Your task to perform on an android device: Clear the shopping cart on newegg.com. Add logitech g pro to the cart on newegg.com, then select checkout. Image 0: 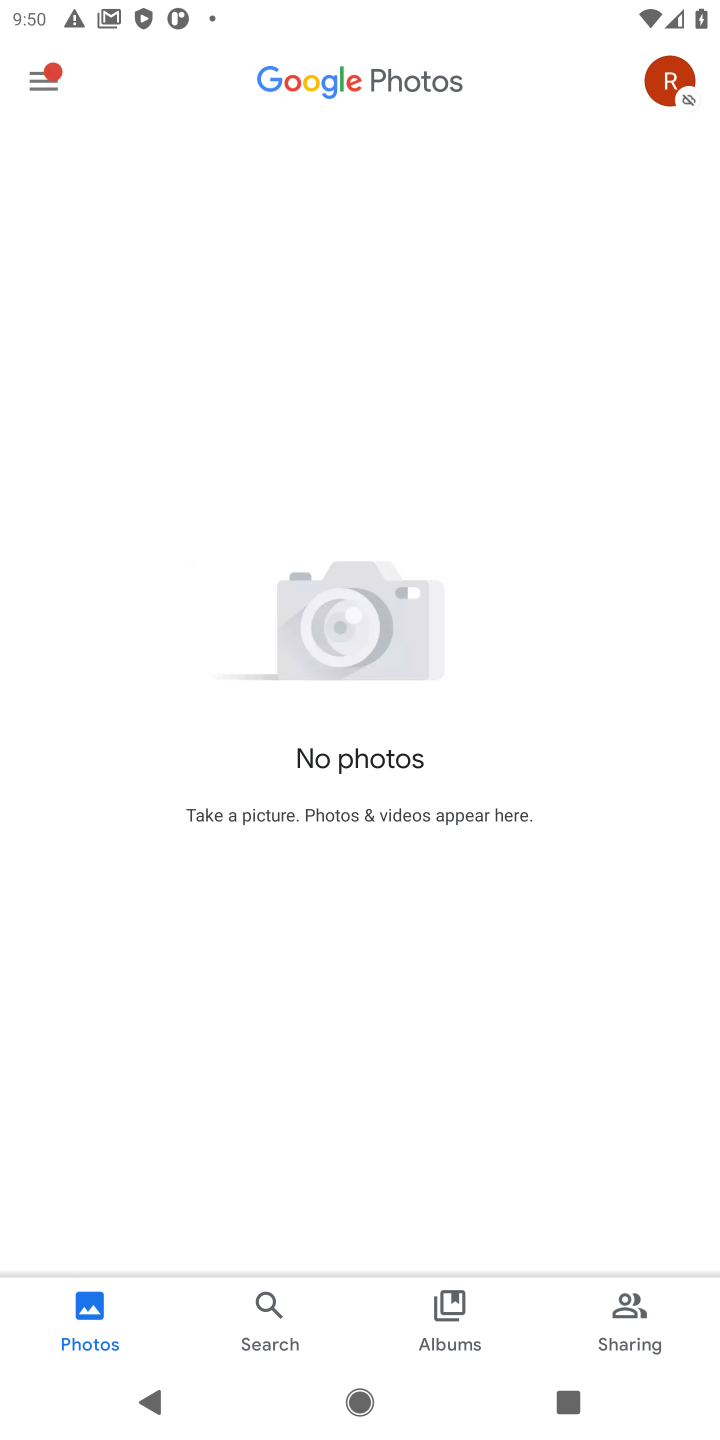
Step 0: press home button
Your task to perform on an android device: Clear the shopping cart on newegg.com. Add logitech g pro to the cart on newegg.com, then select checkout. Image 1: 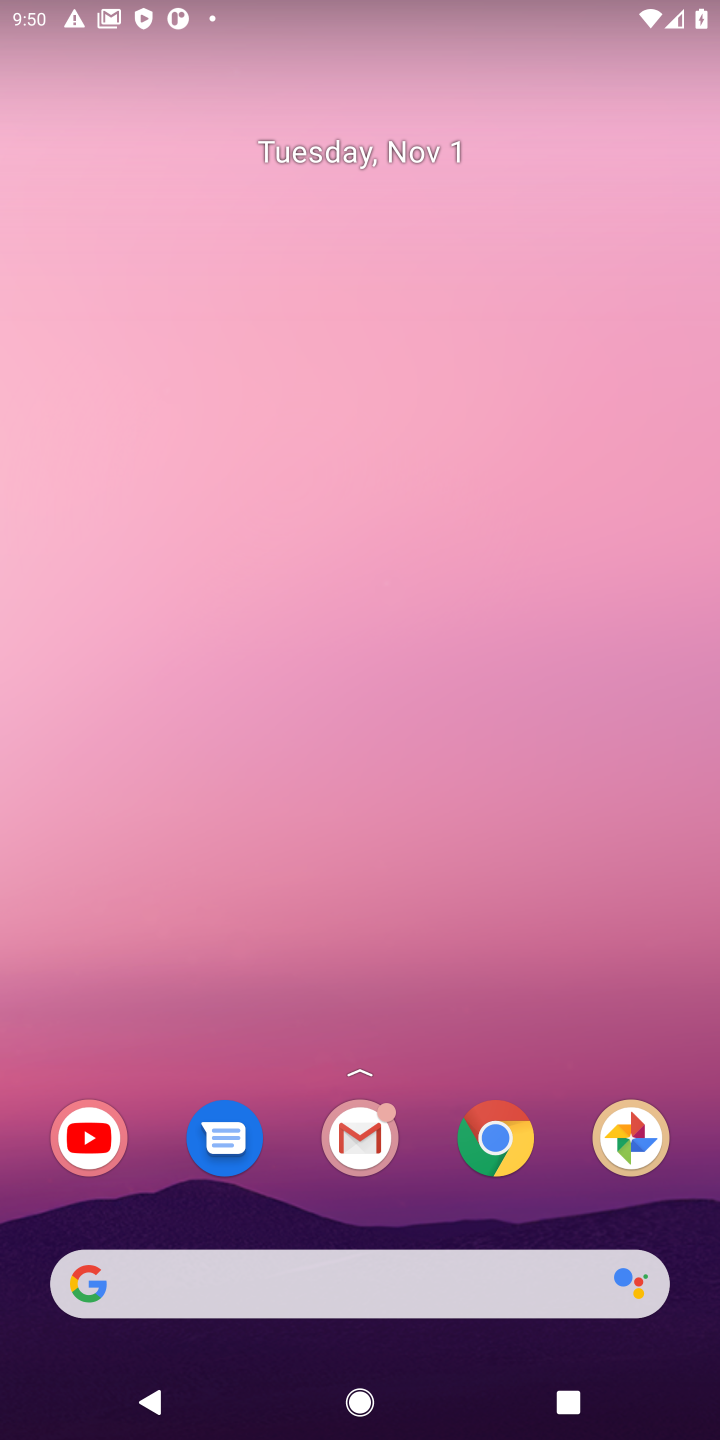
Step 1: click (517, 1148)
Your task to perform on an android device: Clear the shopping cart on newegg.com. Add logitech g pro to the cart on newegg.com, then select checkout. Image 2: 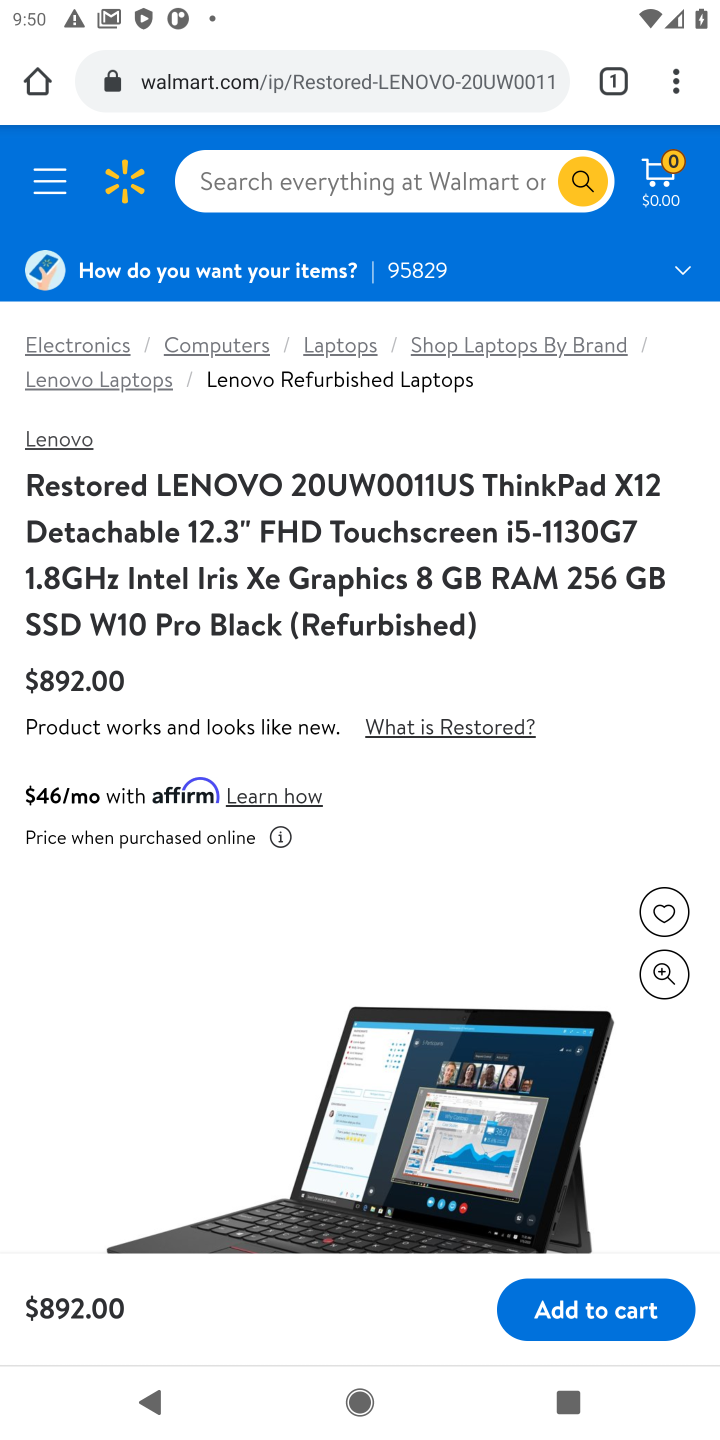
Step 2: click (224, 102)
Your task to perform on an android device: Clear the shopping cart on newegg.com. Add logitech g pro to the cart on newegg.com, then select checkout. Image 3: 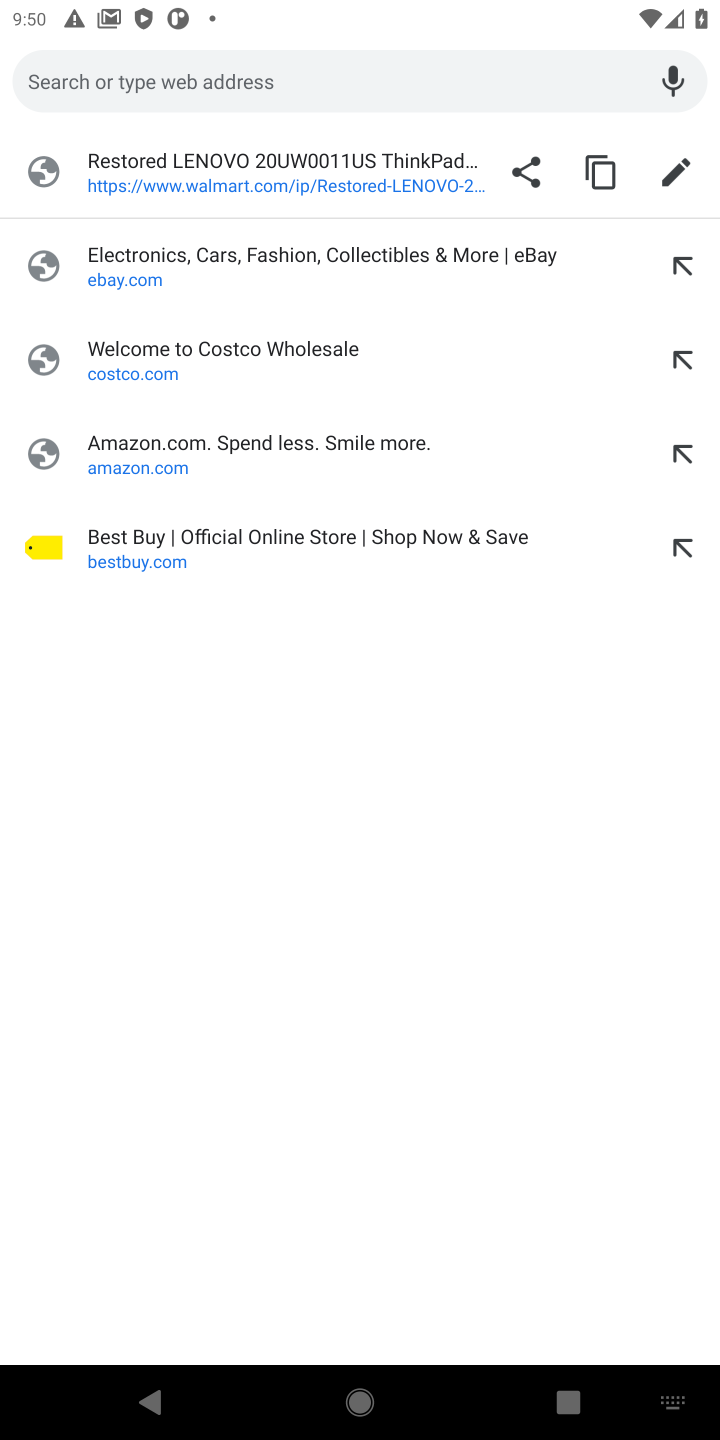
Step 3: type "newegg.com"
Your task to perform on an android device: Clear the shopping cart on newegg.com. Add logitech g pro to the cart on newegg.com, then select checkout. Image 4: 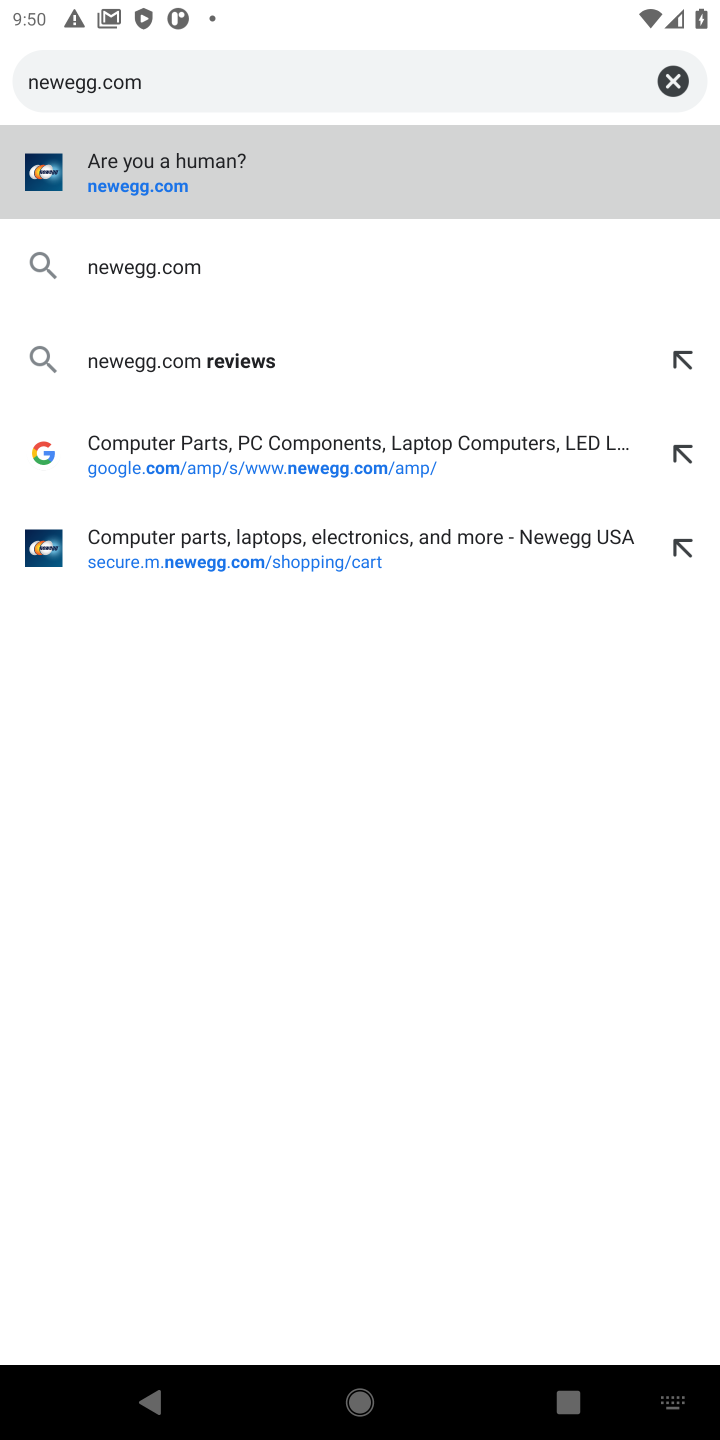
Step 4: click (120, 270)
Your task to perform on an android device: Clear the shopping cart on newegg.com. Add logitech g pro to the cart on newegg.com, then select checkout. Image 5: 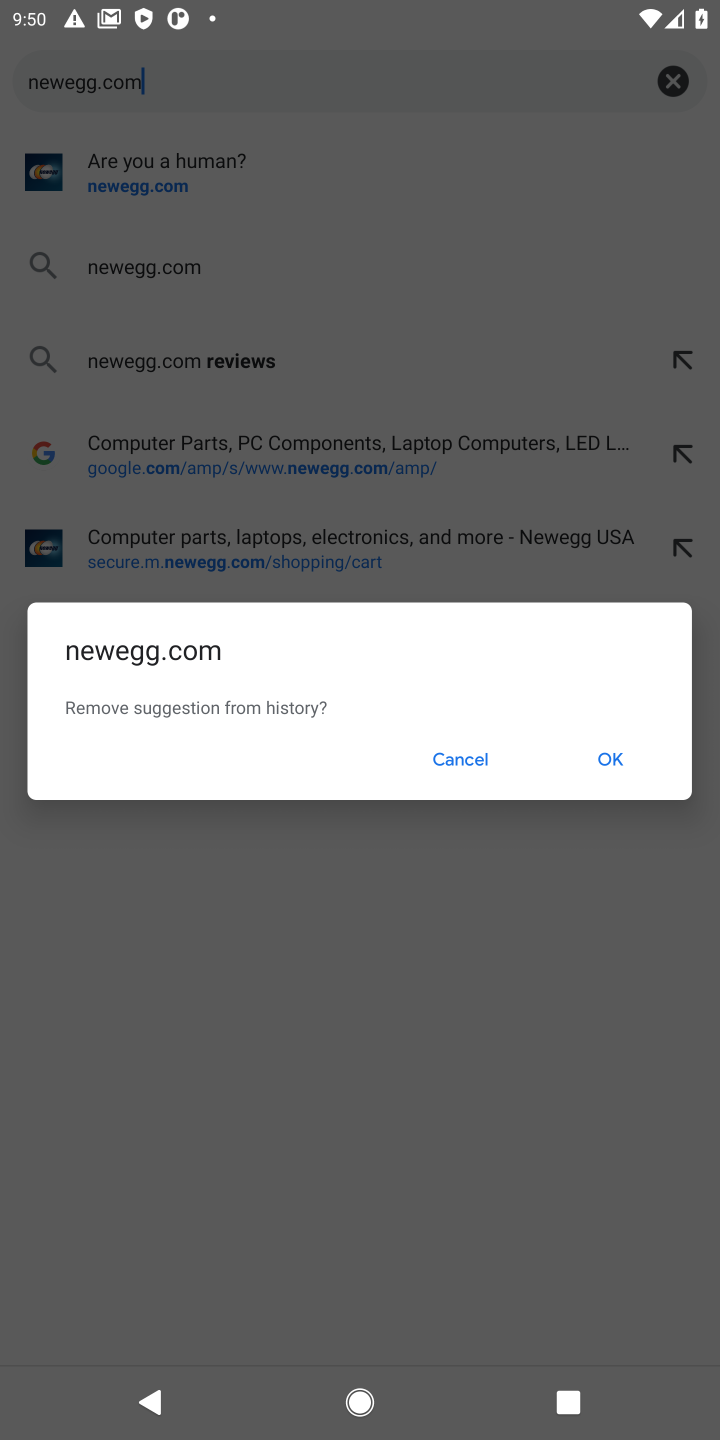
Step 5: click (470, 773)
Your task to perform on an android device: Clear the shopping cart on newegg.com. Add logitech g pro to the cart on newegg.com, then select checkout. Image 6: 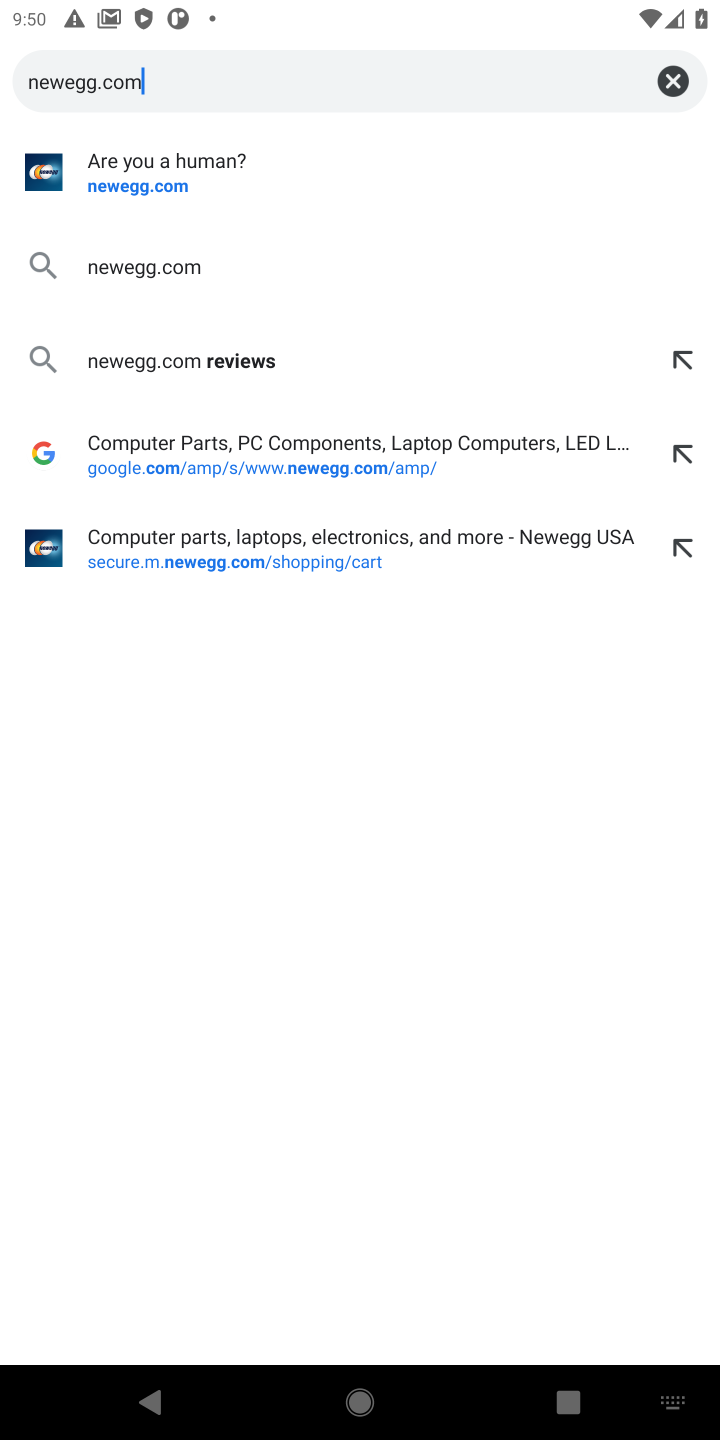
Step 6: click (125, 280)
Your task to perform on an android device: Clear the shopping cart on newegg.com. Add logitech g pro to the cart on newegg.com, then select checkout. Image 7: 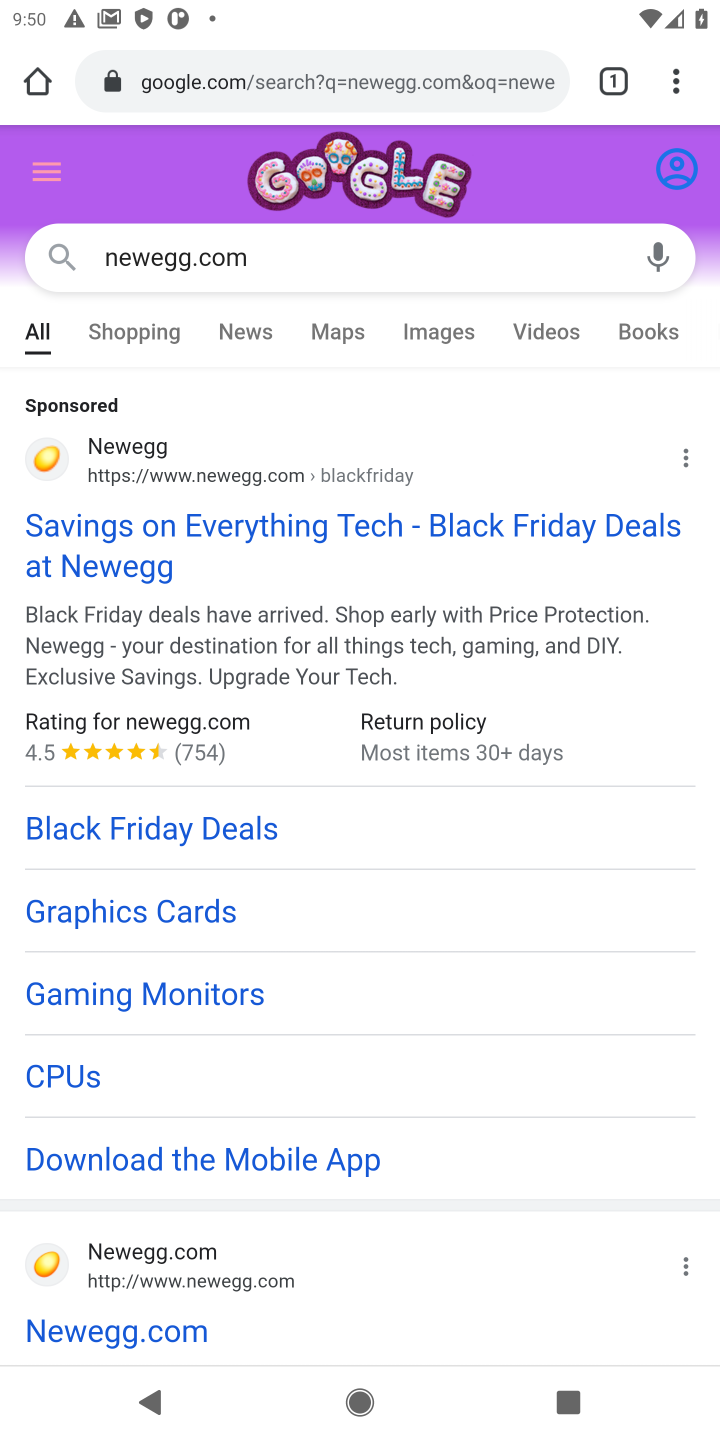
Step 7: drag from (304, 909) to (285, 273)
Your task to perform on an android device: Clear the shopping cart on newegg.com. Add logitech g pro to the cart on newegg.com, then select checkout. Image 8: 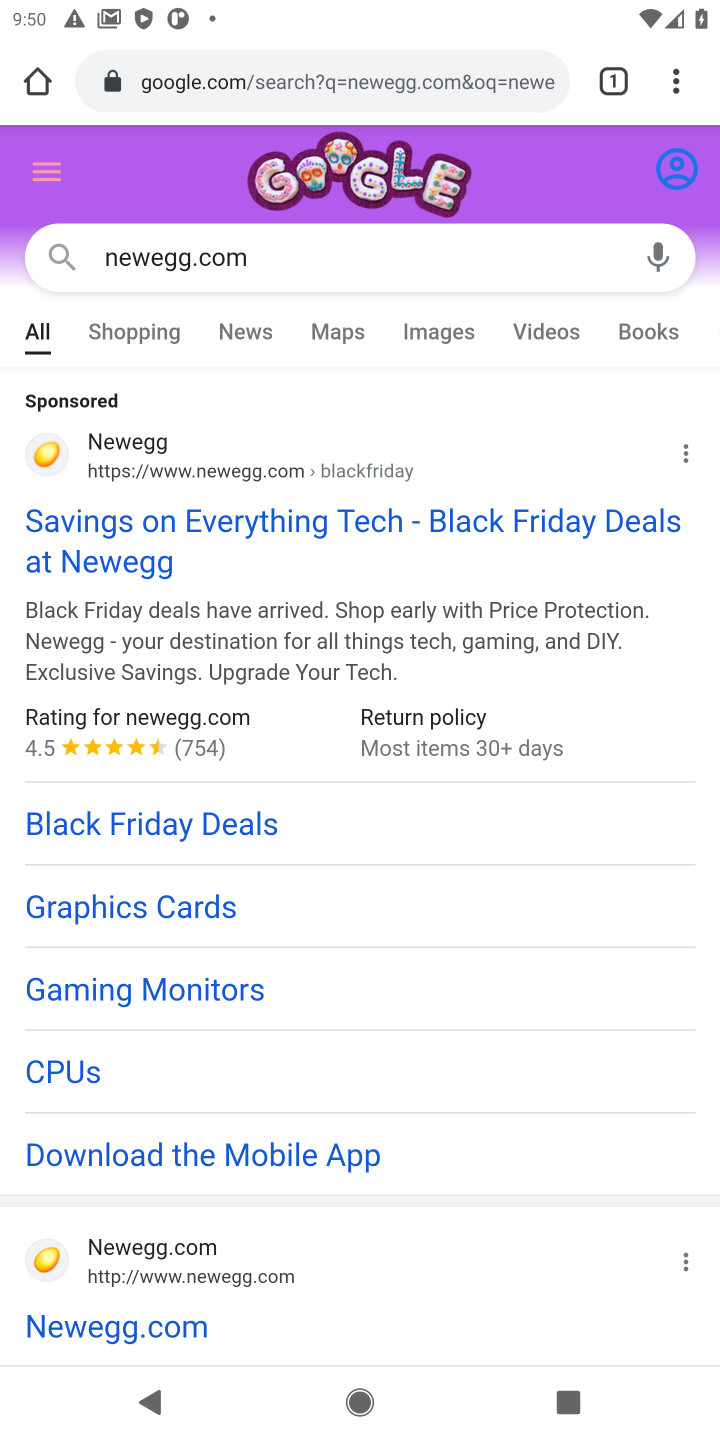
Step 8: click (148, 1251)
Your task to perform on an android device: Clear the shopping cart on newegg.com. Add logitech g pro to the cart on newegg.com, then select checkout. Image 9: 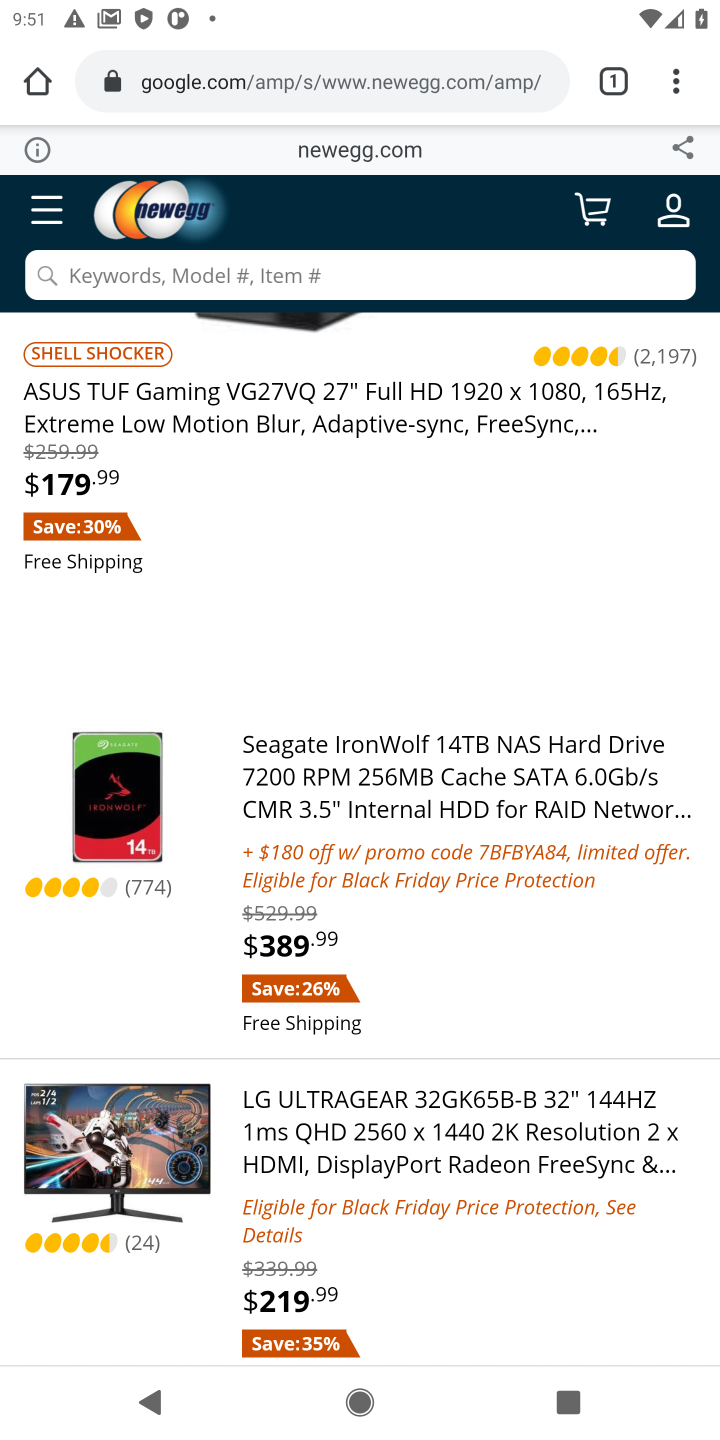
Step 9: click (592, 216)
Your task to perform on an android device: Clear the shopping cart on newegg.com. Add logitech g pro to the cart on newegg.com, then select checkout. Image 10: 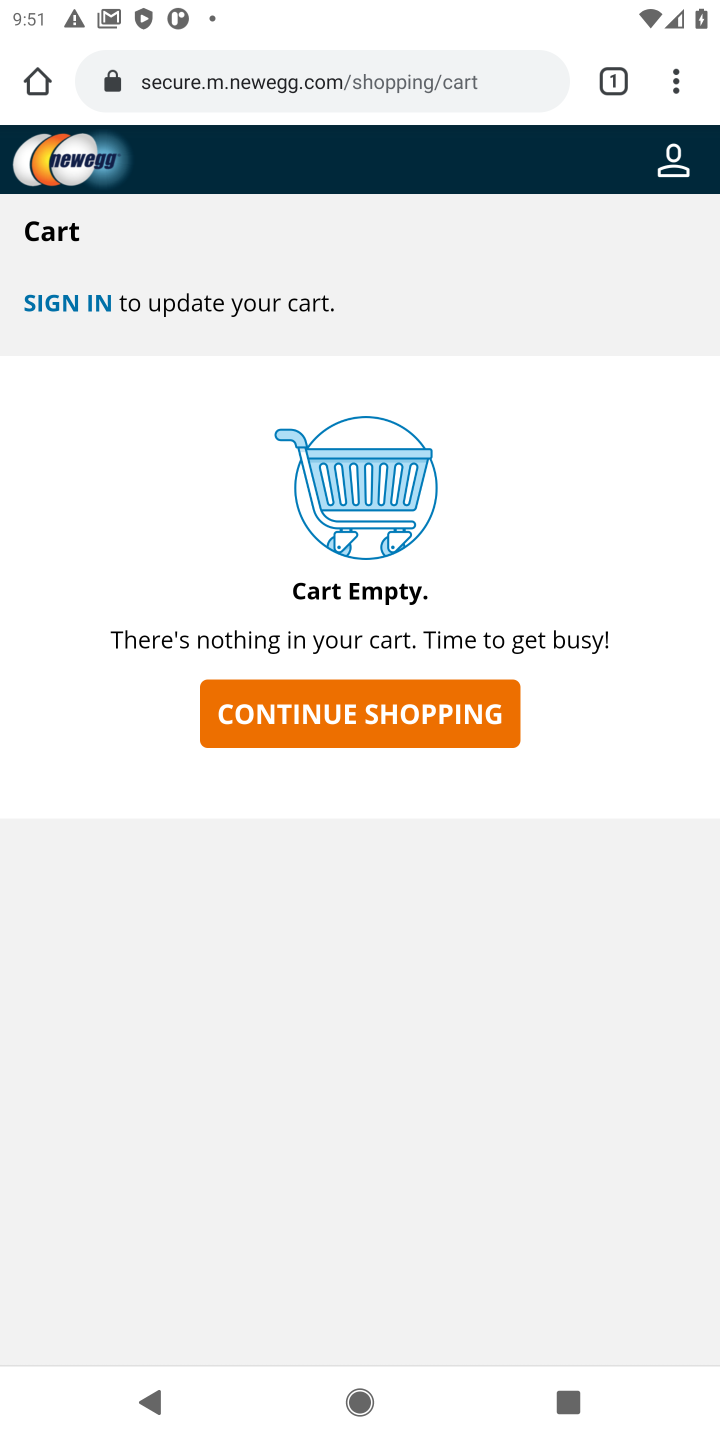
Step 10: click (401, 716)
Your task to perform on an android device: Clear the shopping cart on newegg.com. Add logitech g pro to the cart on newegg.com, then select checkout. Image 11: 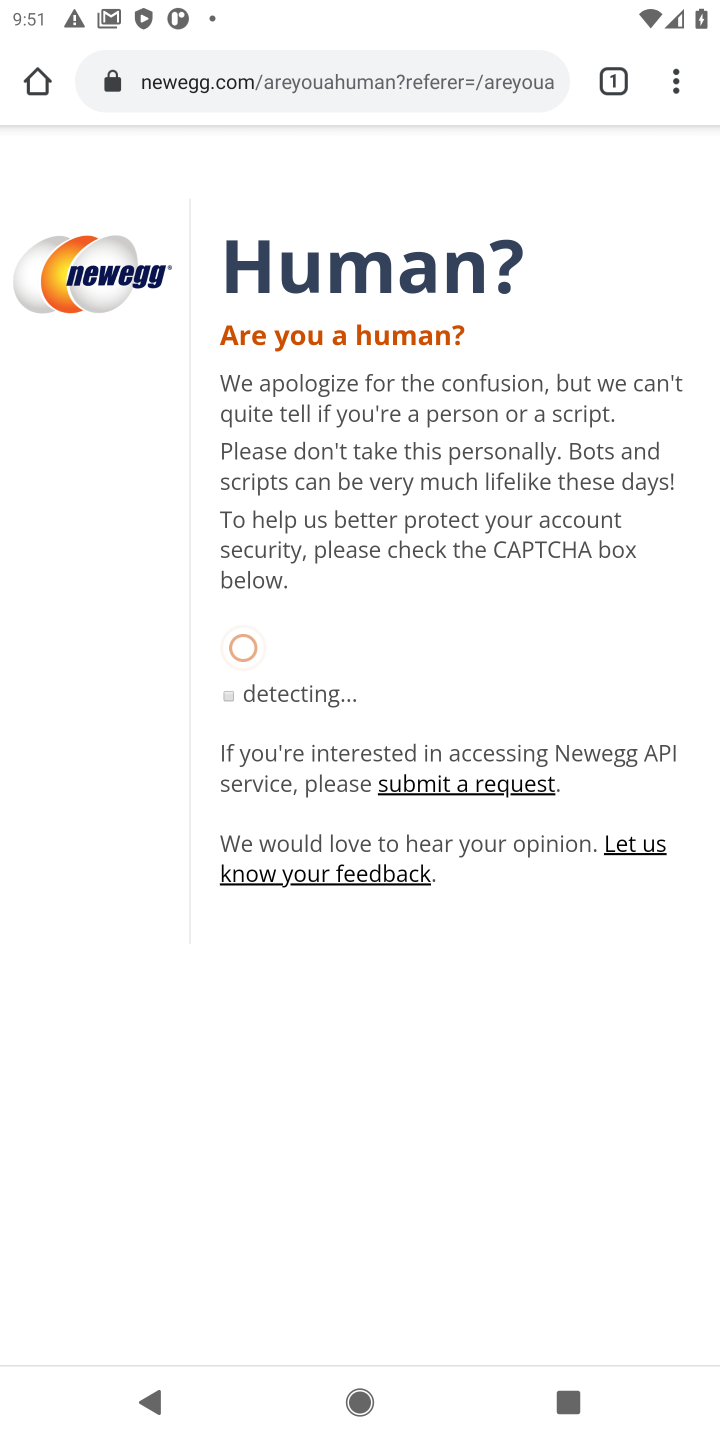
Step 11: press back button
Your task to perform on an android device: Clear the shopping cart on newegg.com. Add logitech g pro to the cart on newegg.com, then select checkout. Image 12: 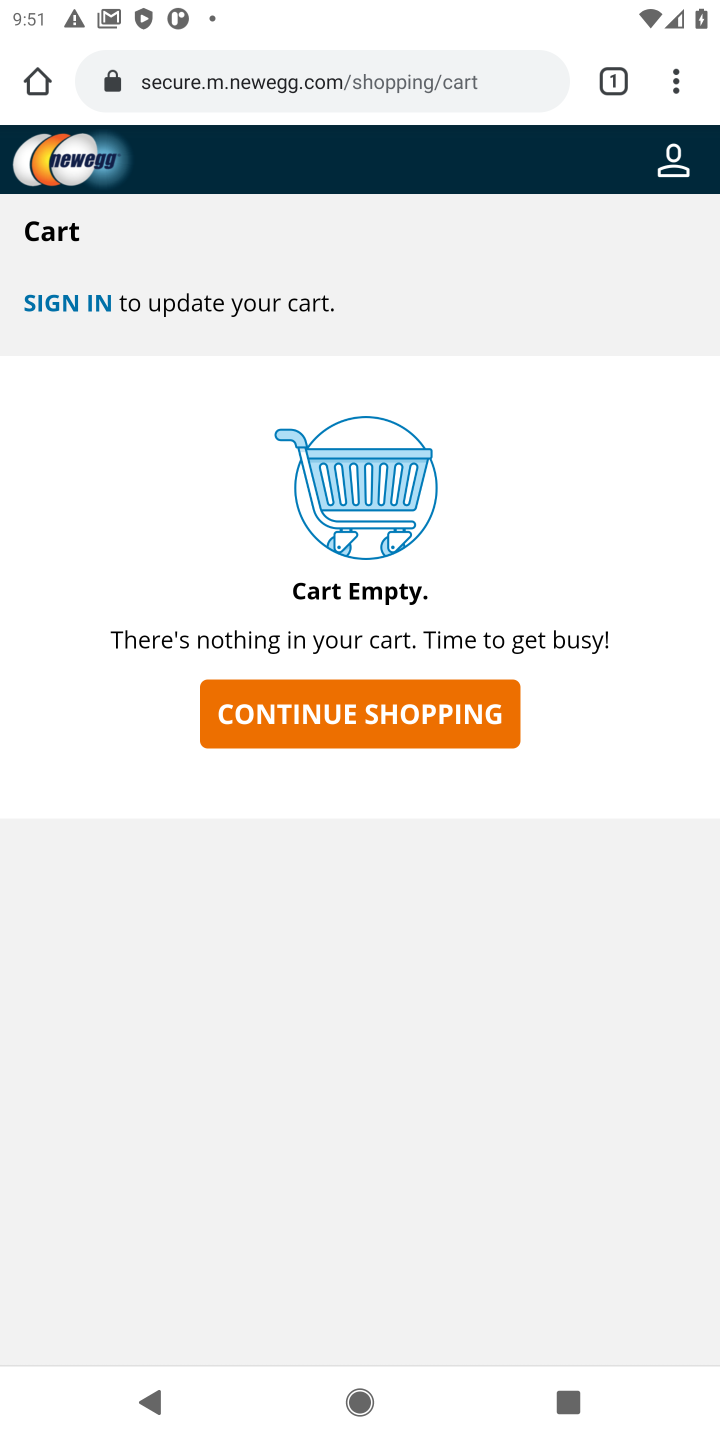
Step 12: press back button
Your task to perform on an android device: Clear the shopping cart on newegg.com. Add logitech g pro to the cart on newegg.com, then select checkout. Image 13: 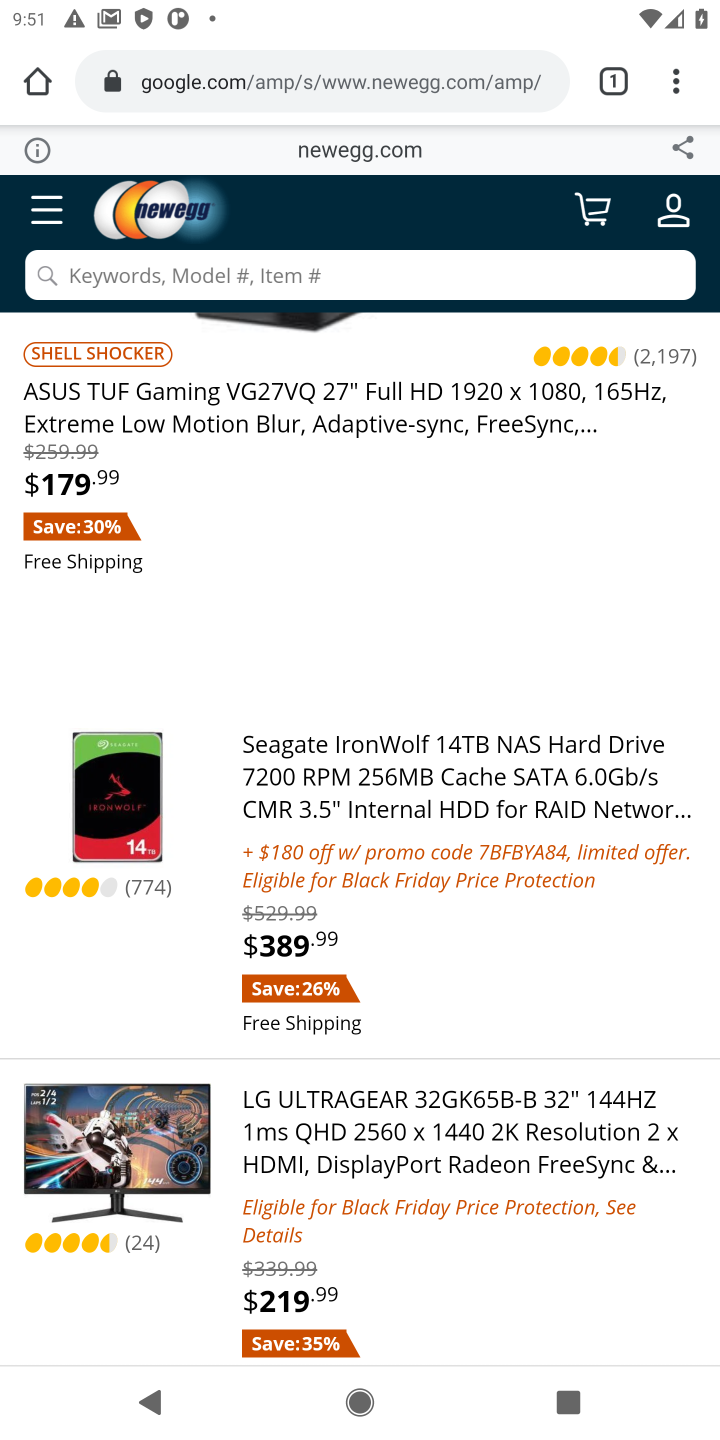
Step 13: click (242, 284)
Your task to perform on an android device: Clear the shopping cart on newegg.com. Add logitech g pro to the cart on newegg.com, then select checkout. Image 14: 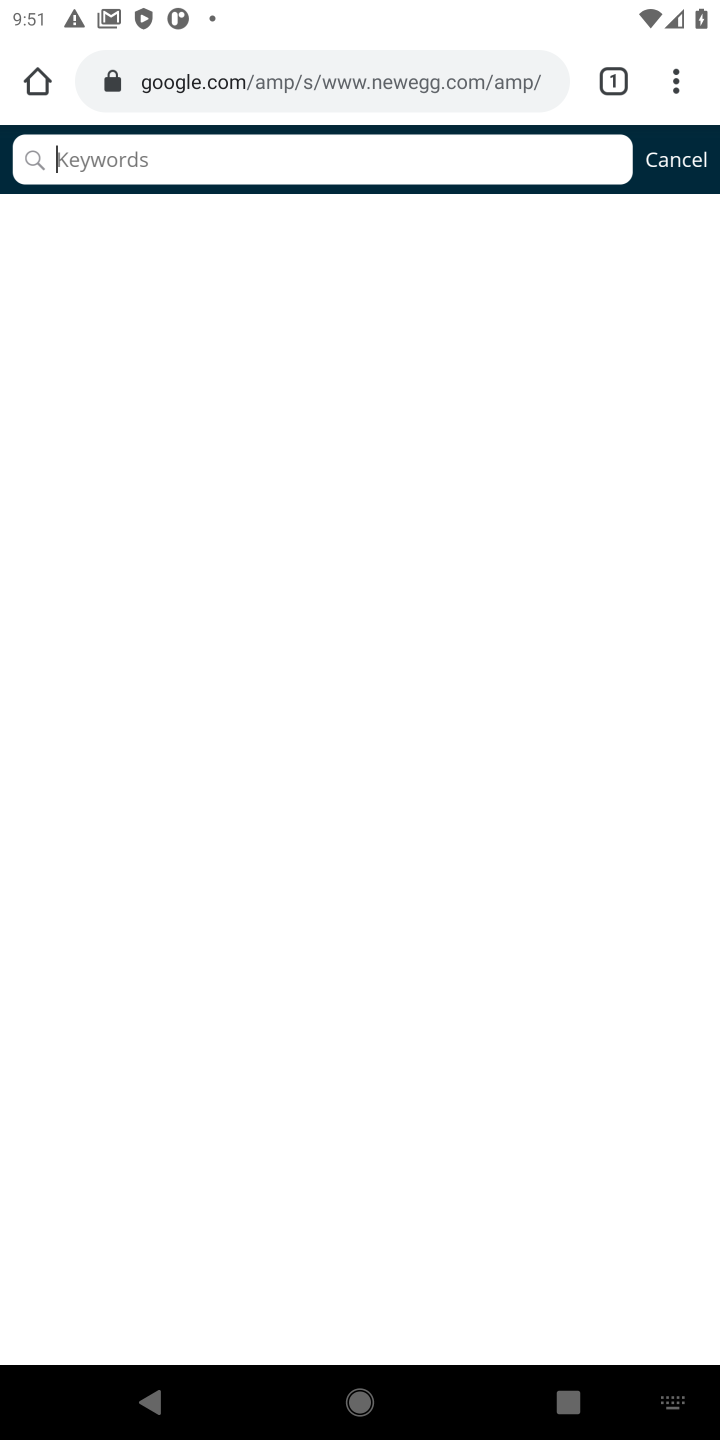
Step 14: type "logitech g pro"
Your task to perform on an android device: Clear the shopping cart on newegg.com. Add logitech g pro to the cart on newegg.com, then select checkout. Image 15: 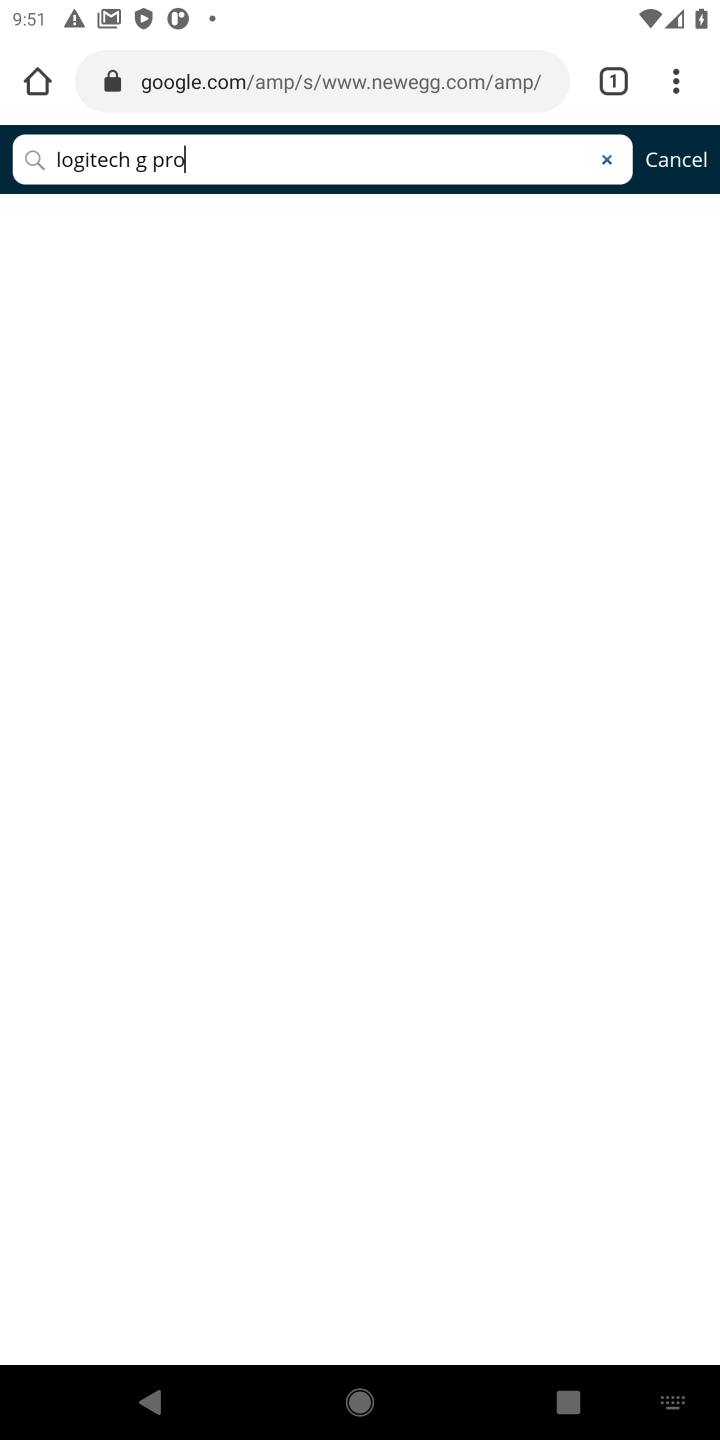
Step 15: click (29, 168)
Your task to perform on an android device: Clear the shopping cart on newegg.com. Add logitech g pro to the cart on newegg.com, then select checkout. Image 16: 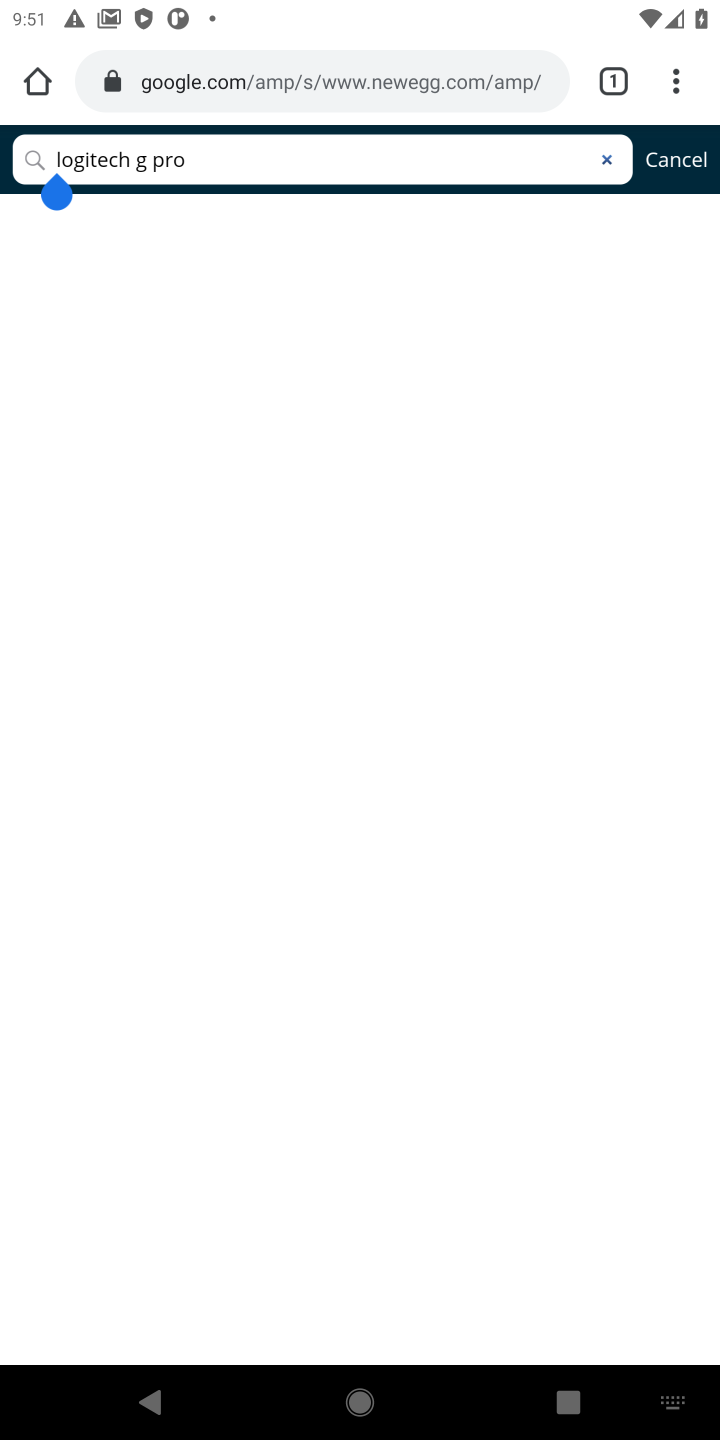
Step 16: task complete